Your task to perform on an android device: When is my next meeting? Image 0: 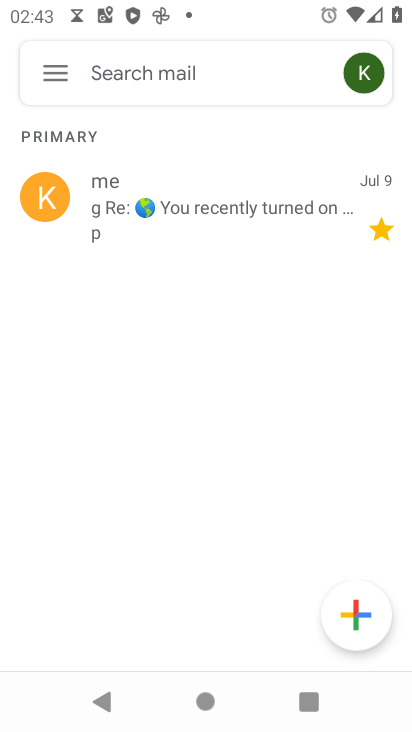
Step 0: press home button
Your task to perform on an android device: When is my next meeting? Image 1: 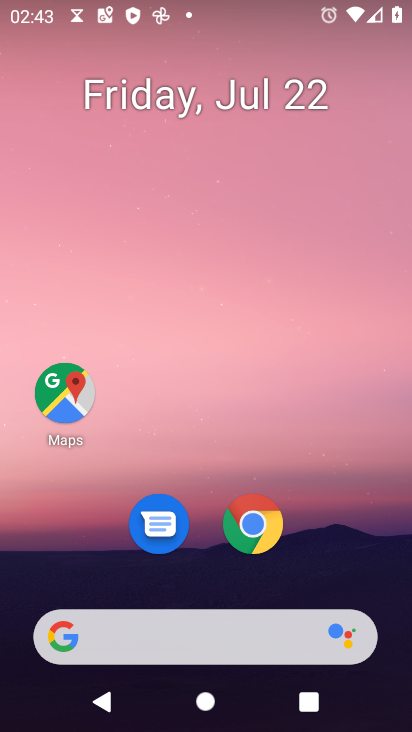
Step 1: drag from (174, 630) to (298, 133)
Your task to perform on an android device: When is my next meeting? Image 2: 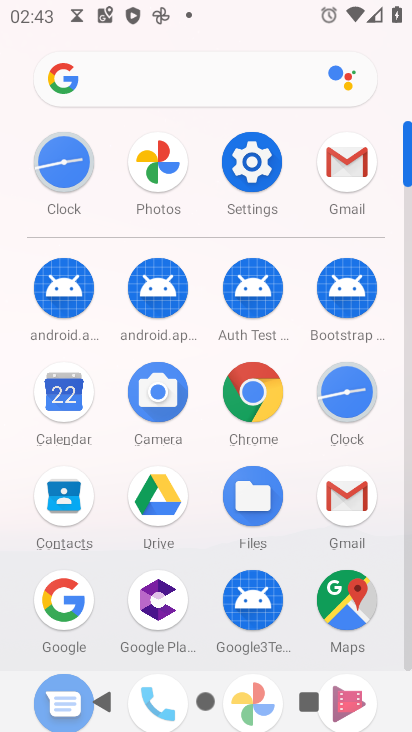
Step 2: click (67, 393)
Your task to perform on an android device: When is my next meeting? Image 3: 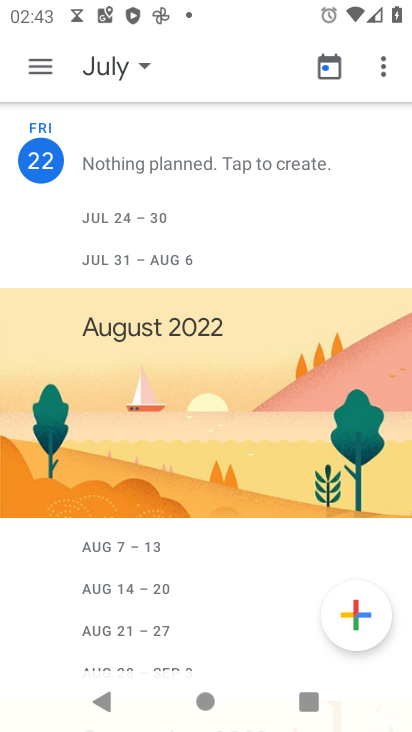
Step 3: task complete